Your task to perform on an android device: toggle sleep mode Image 0: 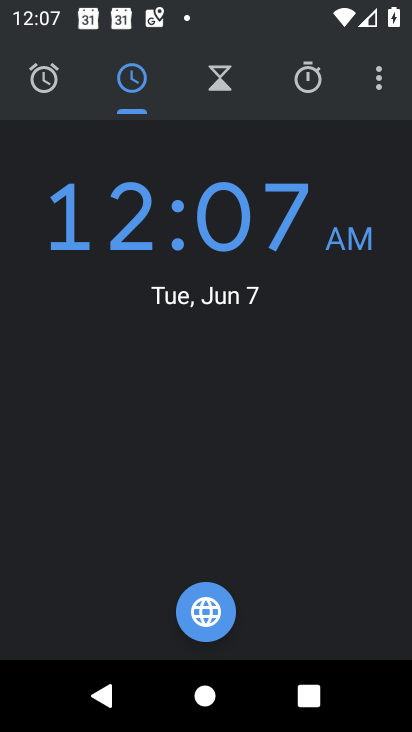
Step 0: press home button
Your task to perform on an android device: toggle sleep mode Image 1: 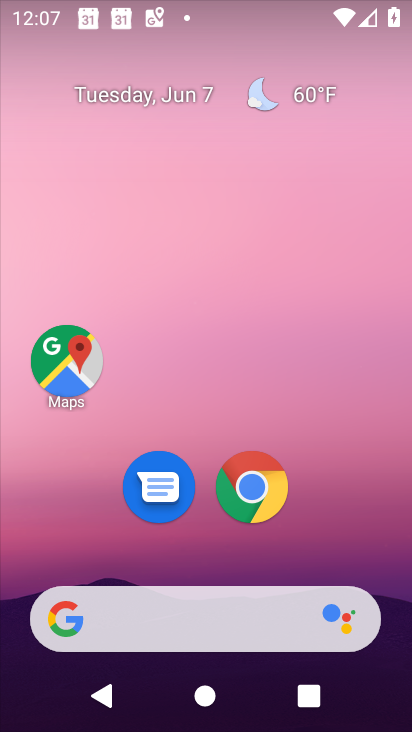
Step 1: drag from (364, 522) to (255, 14)
Your task to perform on an android device: toggle sleep mode Image 2: 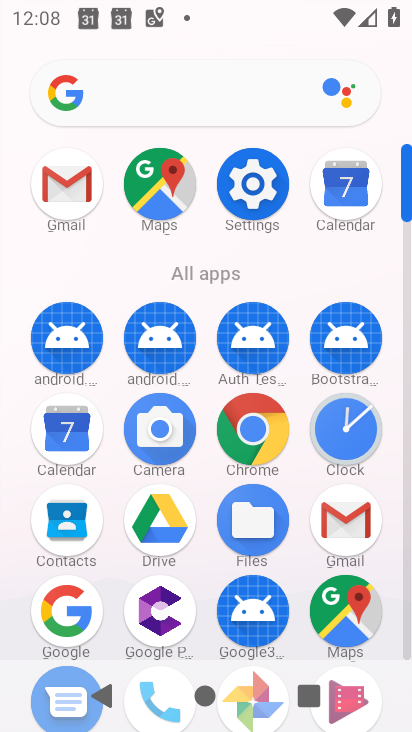
Step 2: click (246, 437)
Your task to perform on an android device: toggle sleep mode Image 3: 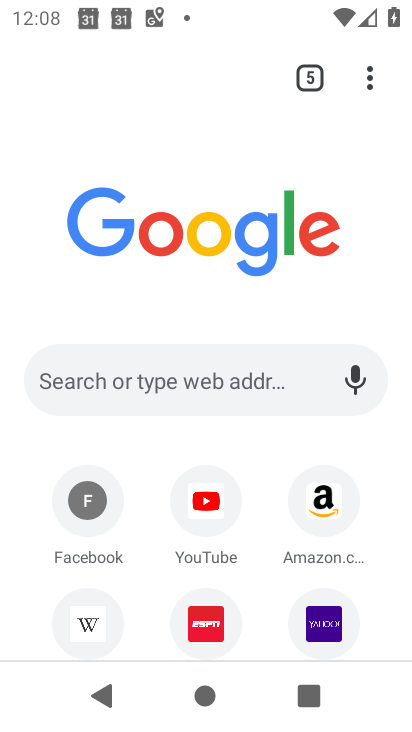
Step 3: click (360, 93)
Your task to perform on an android device: toggle sleep mode Image 4: 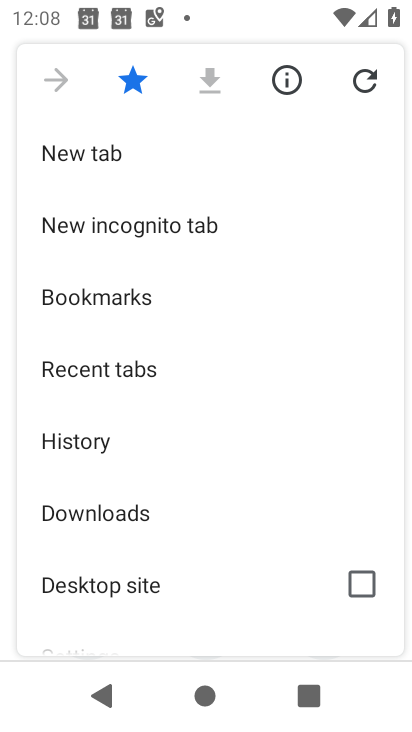
Step 4: drag from (185, 602) to (125, 109)
Your task to perform on an android device: toggle sleep mode Image 5: 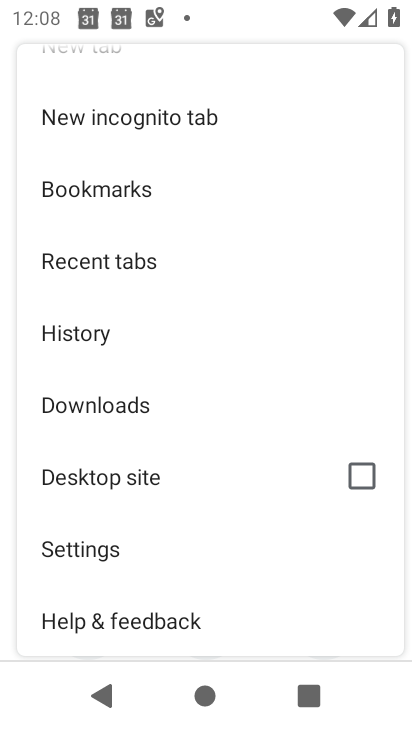
Step 5: press home button
Your task to perform on an android device: toggle sleep mode Image 6: 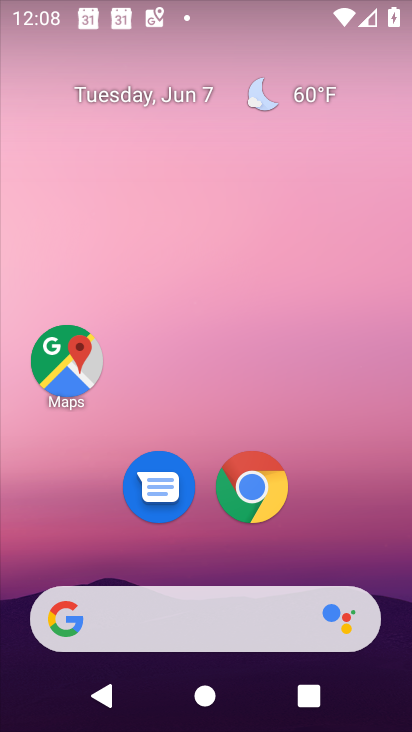
Step 6: drag from (369, 541) to (214, 97)
Your task to perform on an android device: toggle sleep mode Image 7: 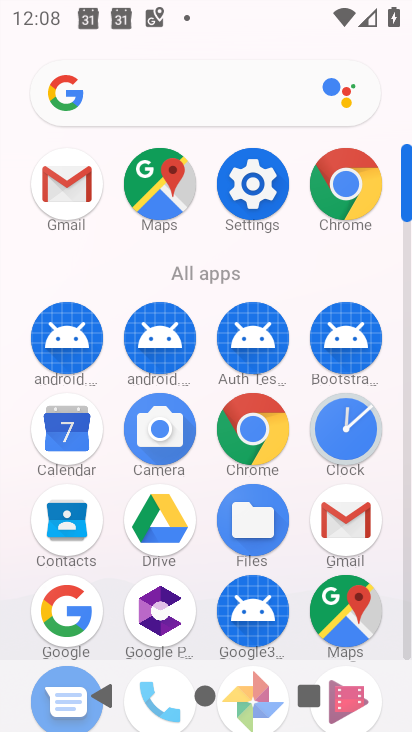
Step 7: click (261, 195)
Your task to perform on an android device: toggle sleep mode Image 8: 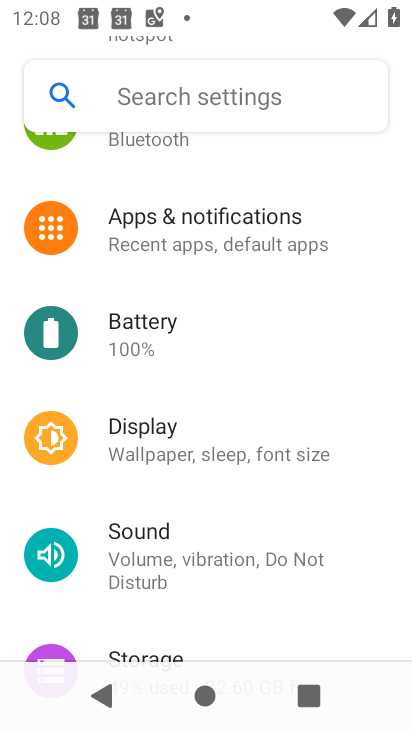
Step 8: click (226, 440)
Your task to perform on an android device: toggle sleep mode Image 9: 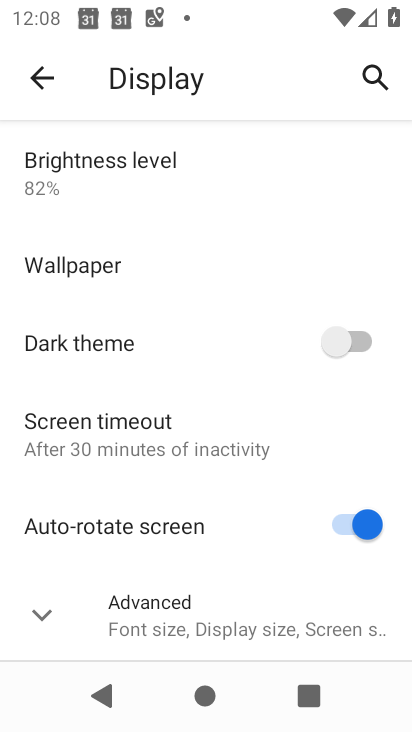
Step 9: click (249, 627)
Your task to perform on an android device: toggle sleep mode Image 10: 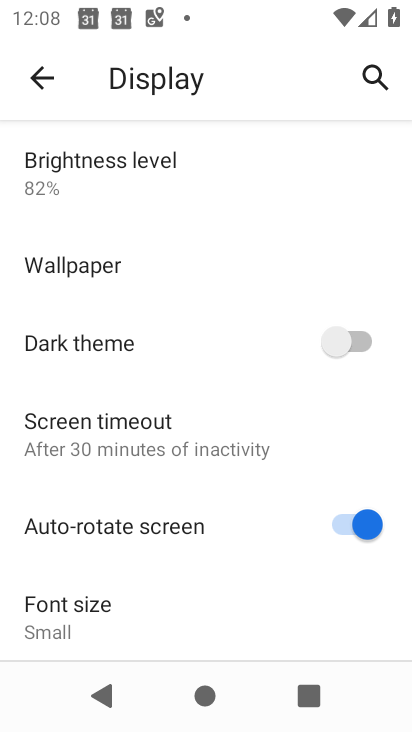
Step 10: task complete